Your task to perform on an android device: Go to Maps Image 0: 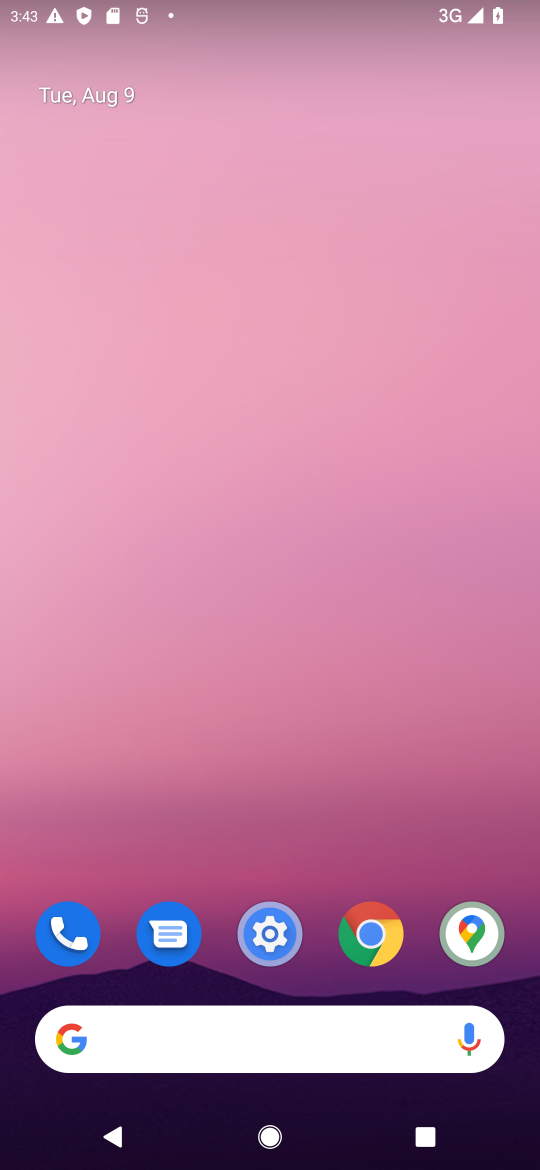
Step 0: click (459, 949)
Your task to perform on an android device: Go to Maps Image 1: 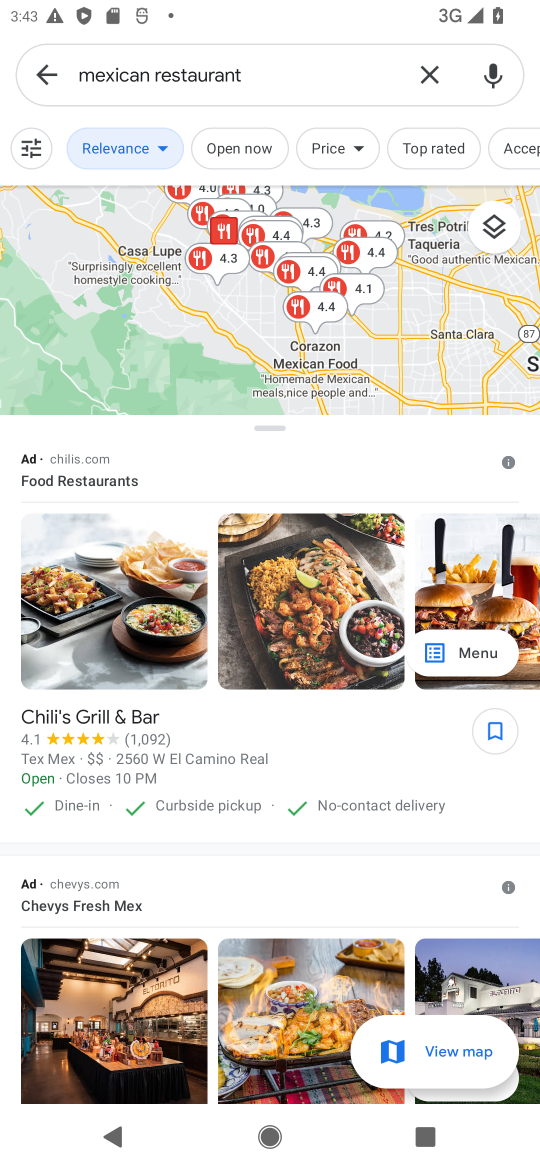
Step 1: task complete